Your task to perform on an android device: turn off picture-in-picture Image 0: 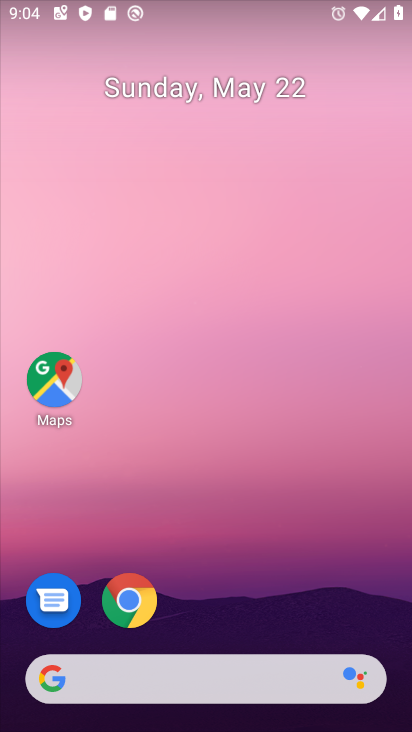
Step 0: drag from (284, 537) to (299, 342)
Your task to perform on an android device: turn off picture-in-picture Image 1: 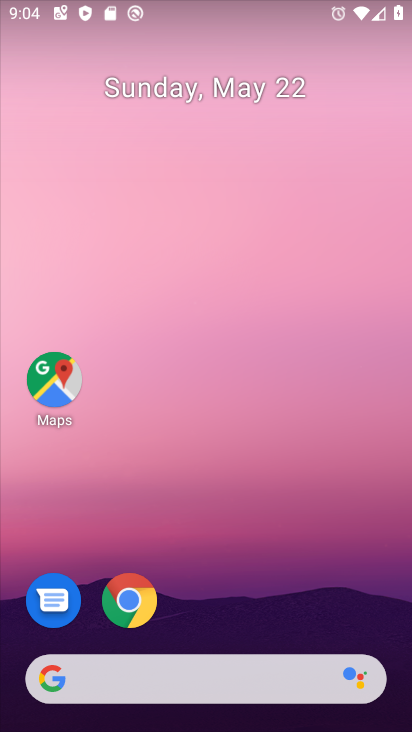
Step 1: drag from (240, 581) to (250, 268)
Your task to perform on an android device: turn off picture-in-picture Image 2: 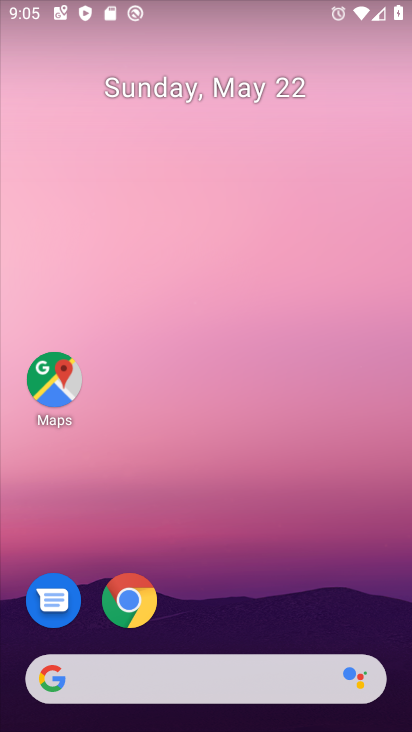
Step 2: drag from (297, 522) to (265, 165)
Your task to perform on an android device: turn off picture-in-picture Image 3: 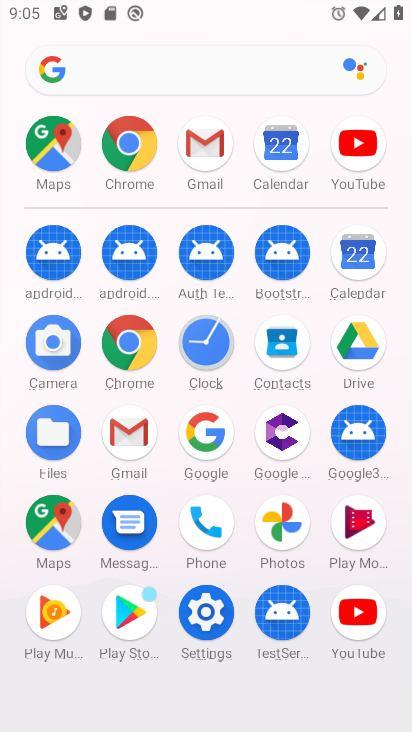
Step 3: click (209, 621)
Your task to perform on an android device: turn off picture-in-picture Image 4: 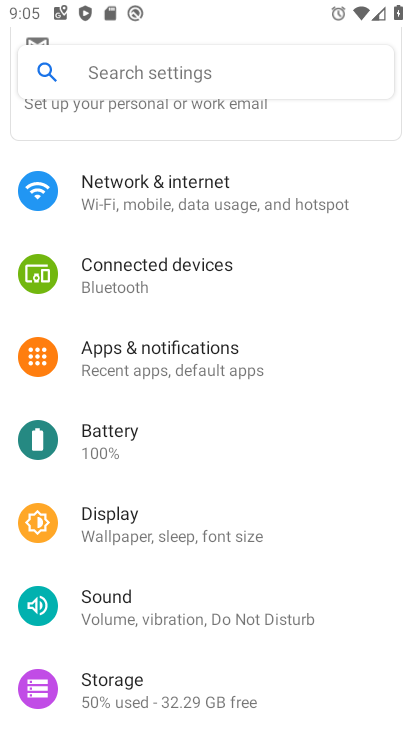
Step 4: click (231, 366)
Your task to perform on an android device: turn off picture-in-picture Image 5: 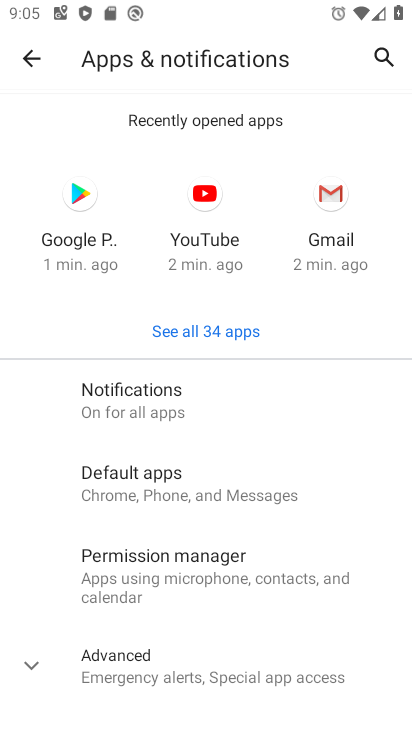
Step 5: click (201, 665)
Your task to perform on an android device: turn off picture-in-picture Image 6: 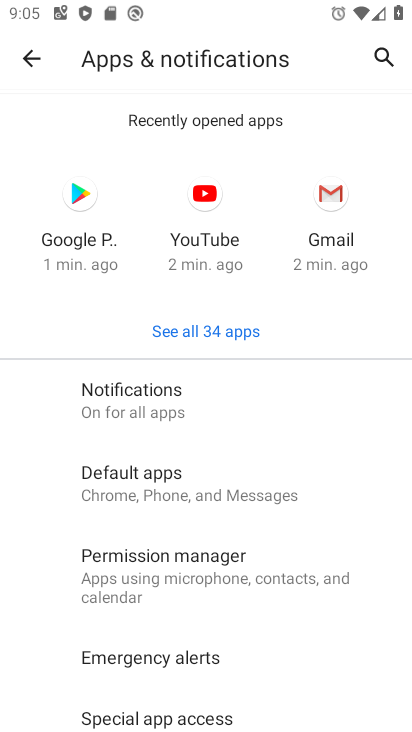
Step 6: drag from (151, 646) to (290, 128)
Your task to perform on an android device: turn off picture-in-picture Image 7: 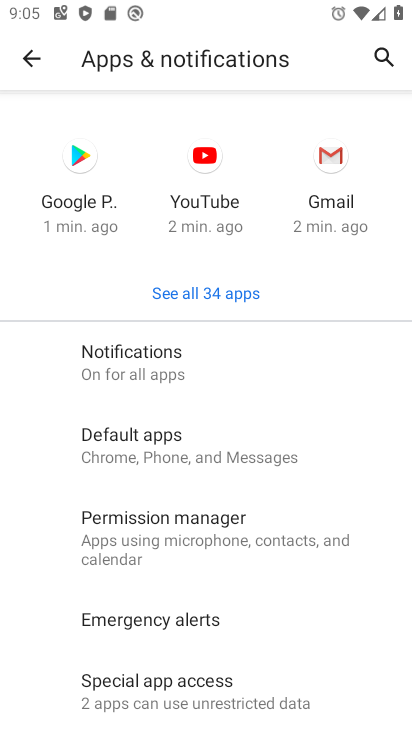
Step 7: click (223, 688)
Your task to perform on an android device: turn off picture-in-picture Image 8: 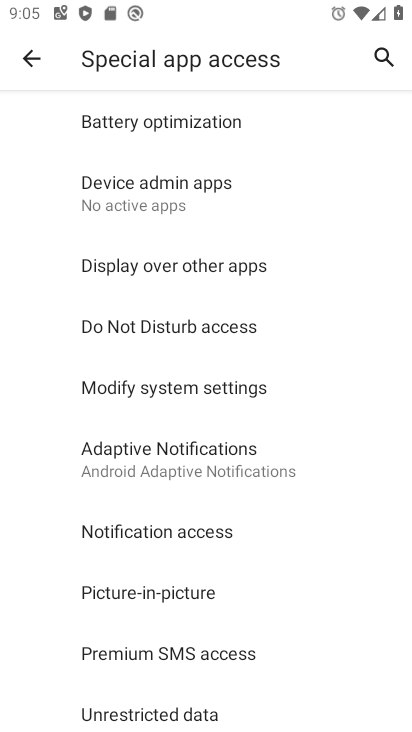
Step 8: drag from (249, 593) to (283, 363)
Your task to perform on an android device: turn off picture-in-picture Image 9: 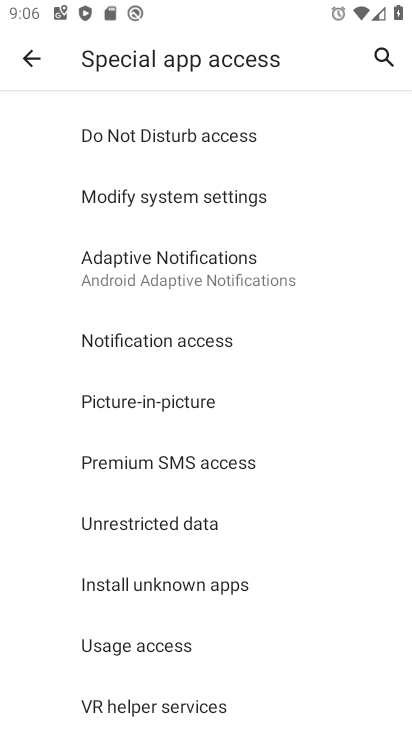
Step 9: click (198, 406)
Your task to perform on an android device: turn off picture-in-picture Image 10: 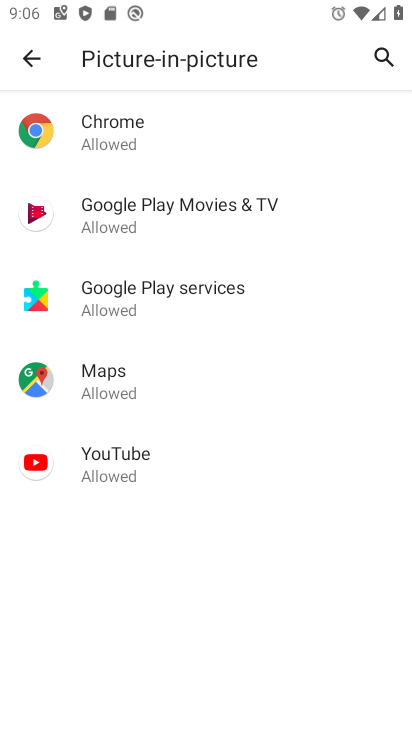
Step 10: click (219, 133)
Your task to perform on an android device: turn off picture-in-picture Image 11: 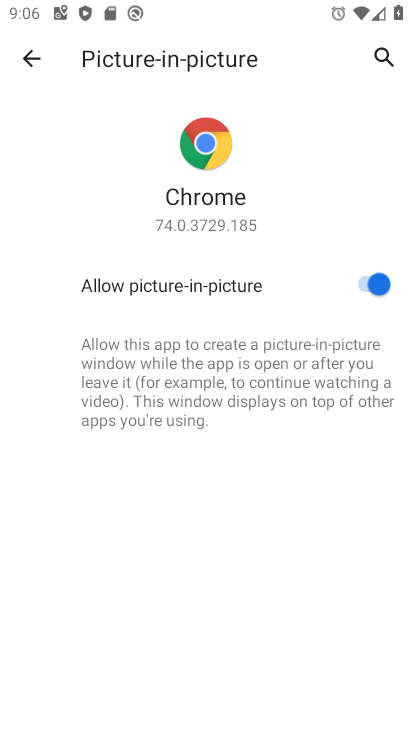
Step 11: click (367, 288)
Your task to perform on an android device: turn off picture-in-picture Image 12: 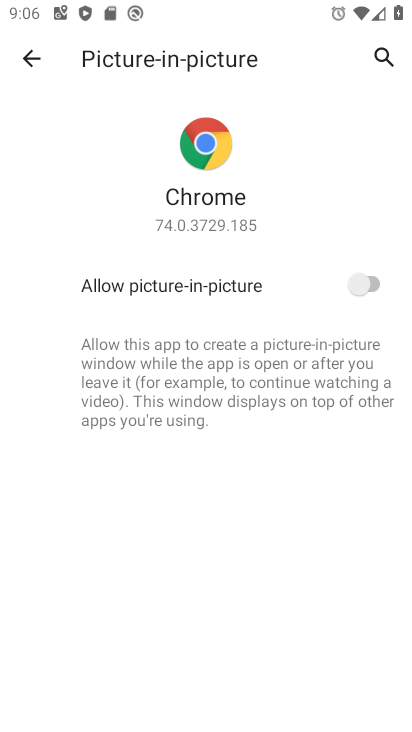
Step 12: task complete